Your task to perform on an android device: turn off improve location accuracy Image 0: 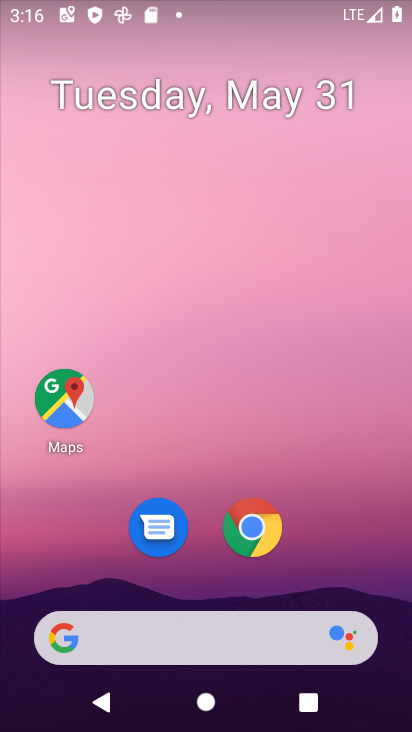
Step 0: drag from (341, 556) to (361, 139)
Your task to perform on an android device: turn off improve location accuracy Image 1: 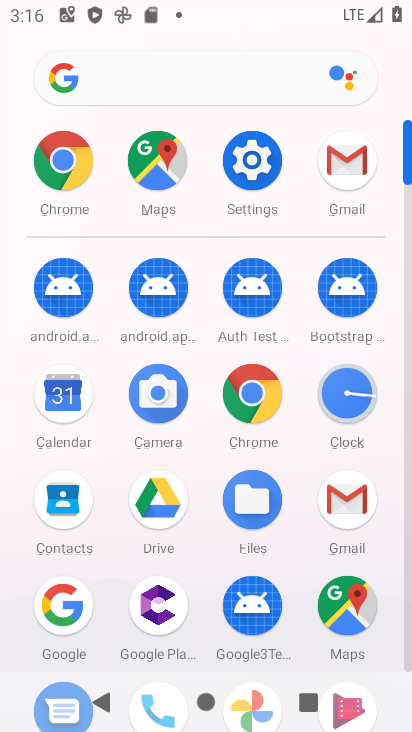
Step 1: click (265, 162)
Your task to perform on an android device: turn off improve location accuracy Image 2: 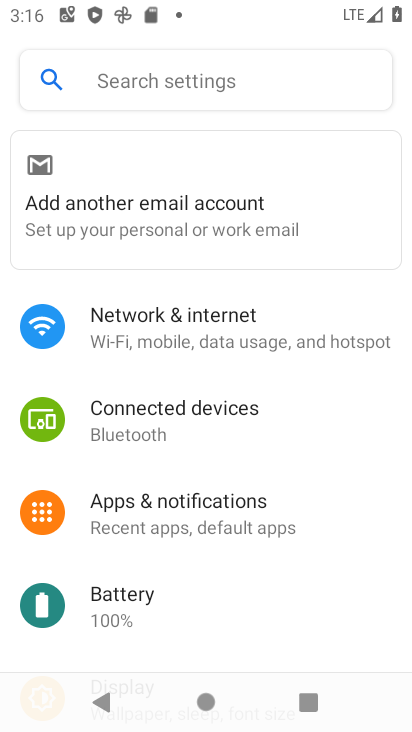
Step 2: drag from (266, 521) to (249, 199)
Your task to perform on an android device: turn off improve location accuracy Image 3: 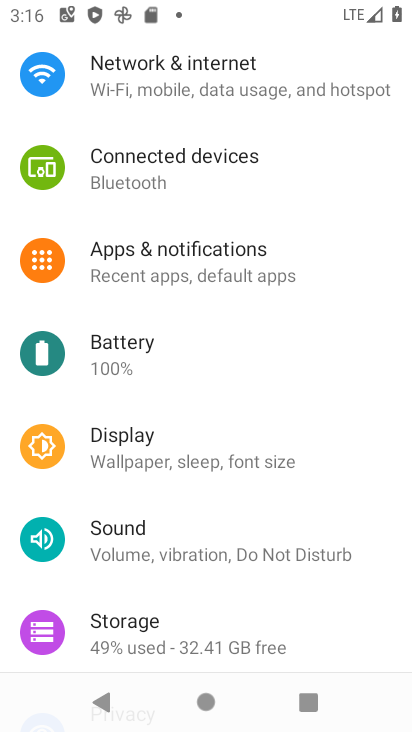
Step 3: drag from (238, 501) to (232, 191)
Your task to perform on an android device: turn off improve location accuracy Image 4: 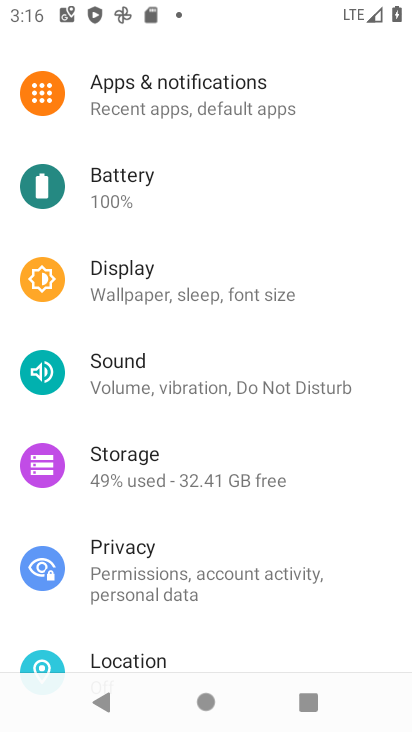
Step 4: drag from (213, 561) to (236, 194)
Your task to perform on an android device: turn off improve location accuracy Image 5: 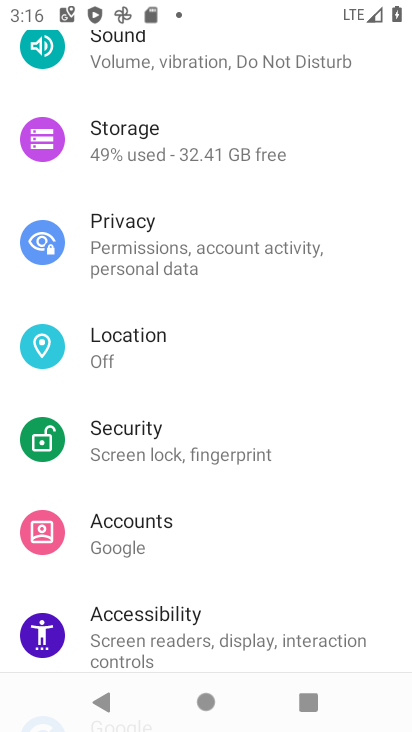
Step 5: click (165, 385)
Your task to perform on an android device: turn off improve location accuracy Image 6: 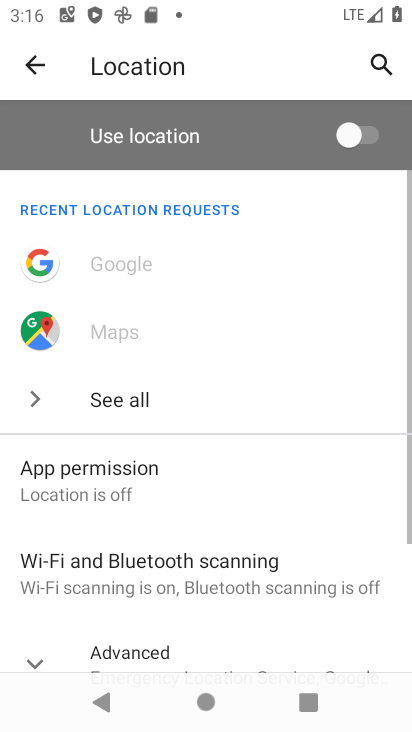
Step 6: drag from (205, 596) to (250, 212)
Your task to perform on an android device: turn off improve location accuracy Image 7: 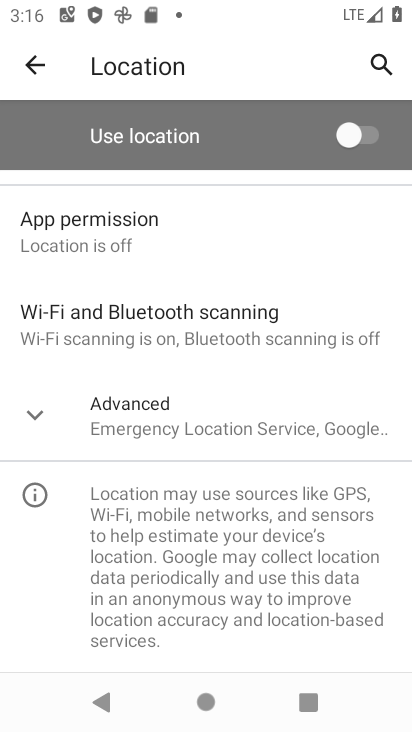
Step 7: click (143, 427)
Your task to perform on an android device: turn off improve location accuracy Image 8: 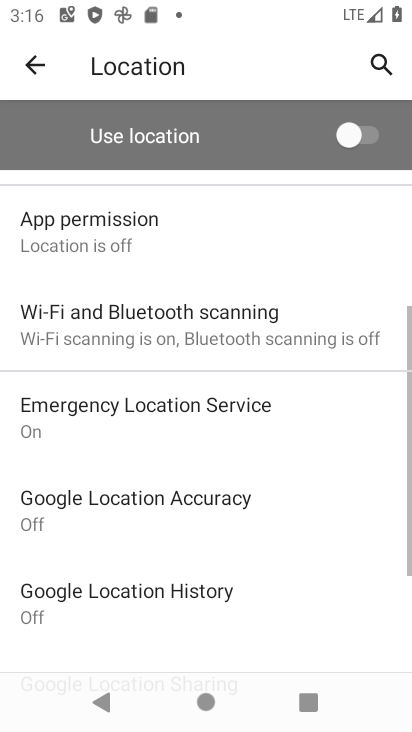
Step 8: drag from (227, 550) to (245, 342)
Your task to perform on an android device: turn off improve location accuracy Image 9: 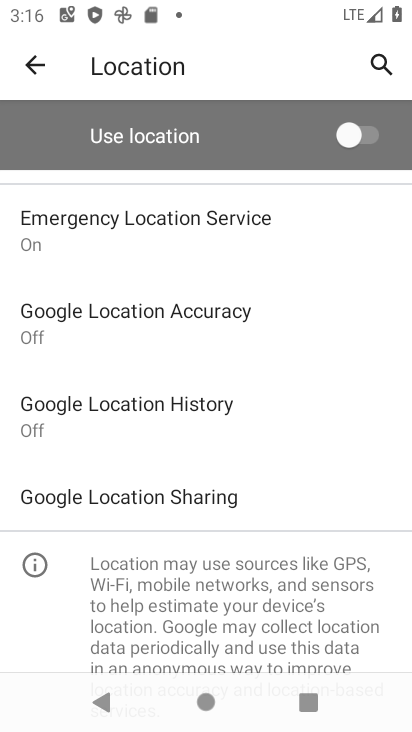
Step 9: click (197, 327)
Your task to perform on an android device: turn off improve location accuracy Image 10: 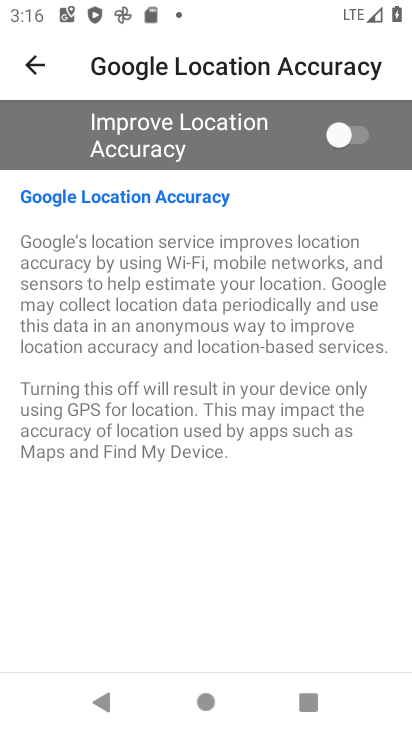
Step 10: task complete